Your task to perform on an android device: turn on the 24-hour format for clock Image 0: 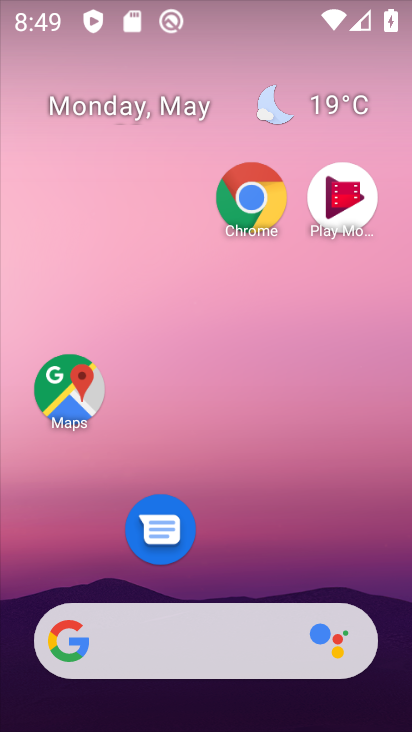
Step 0: drag from (270, 535) to (194, 0)
Your task to perform on an android device: turn on the 24-hour format for clock Image 1: 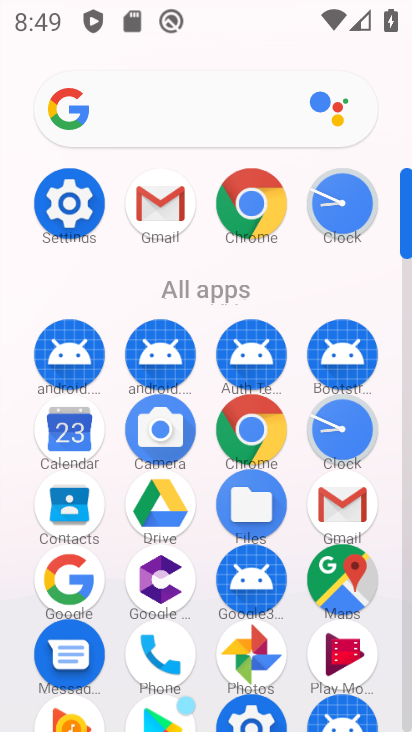
Step 1: click (349, 433)
Your task to perform on an android device: turn on the 24-hour format for clock Image 2: 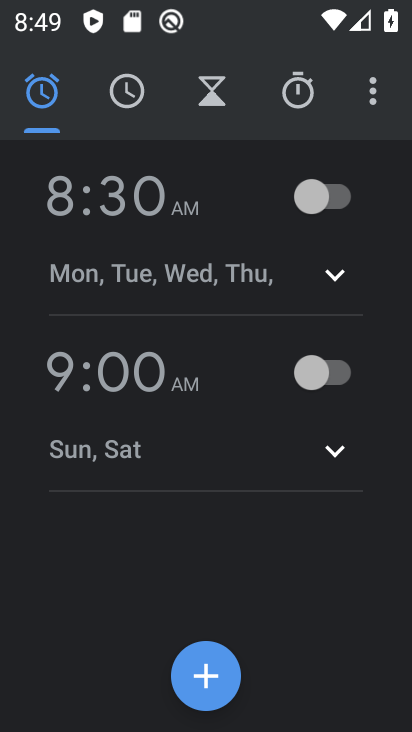
Step 2: click (376, 90)
Your task to perform on an android device: turn on the 24-hour format for clock Image 3: 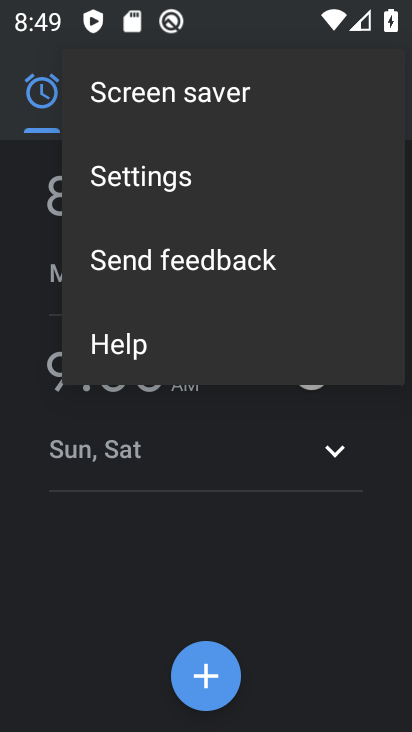
Step 3: click (177, 180)
Your task to perform on an android device: turn on the 24-hour format for clock Image 4: 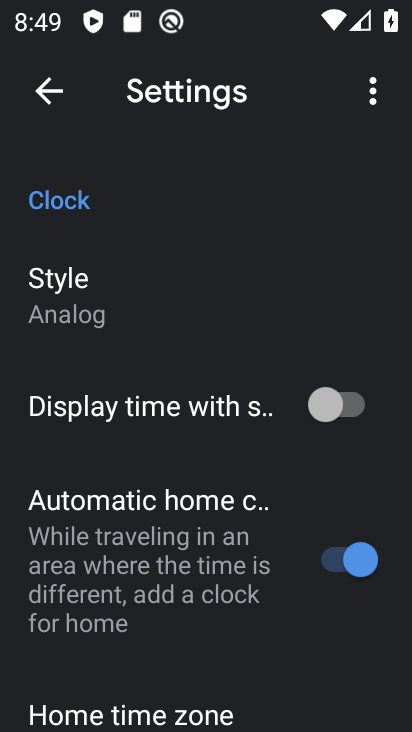
Step 4: drag from (192, 618) to (199, 331)
Your task to perform on an android device: turn on the 24-hour format for clock Image 5: 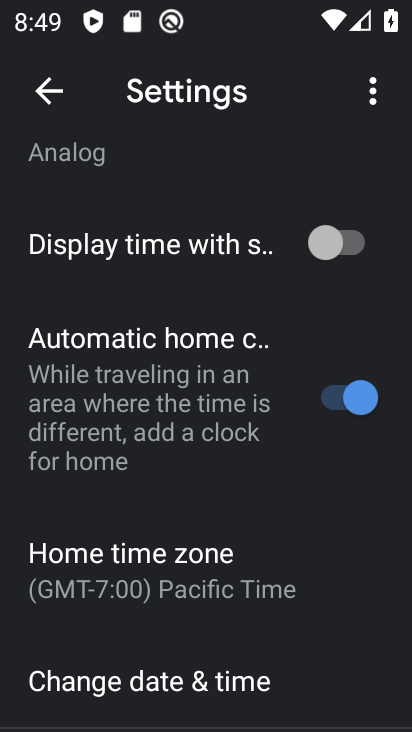
Step 5: drag from (200, 652) to (218, 317)
Your task to perform on an android device: turn on the 24-hour format for clock Image 6: 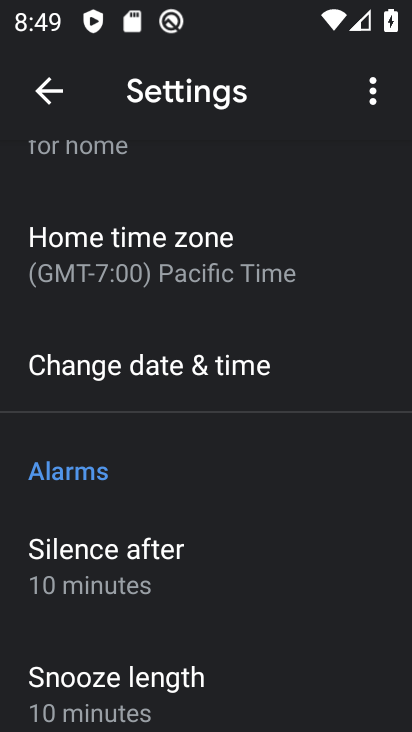
Step 6: click (207, 377)
Your task to perform on an android device: turn on the 24-hour format for clock Image 7: 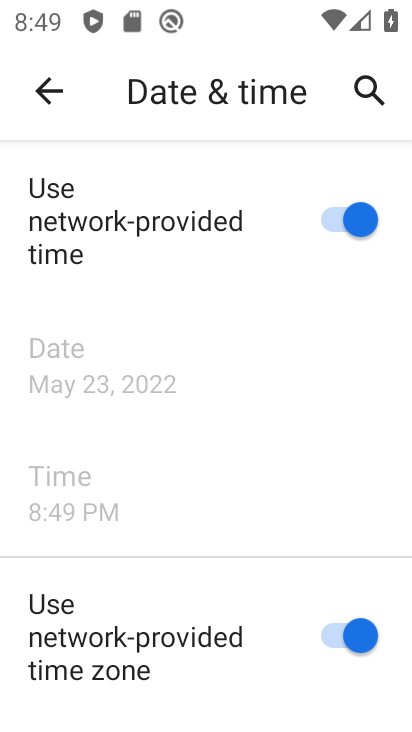
Step 7: drag from (293, 675) to (293, 368)
Your task to perform on an android device: turn on the 24-hour format for clock Image 8: 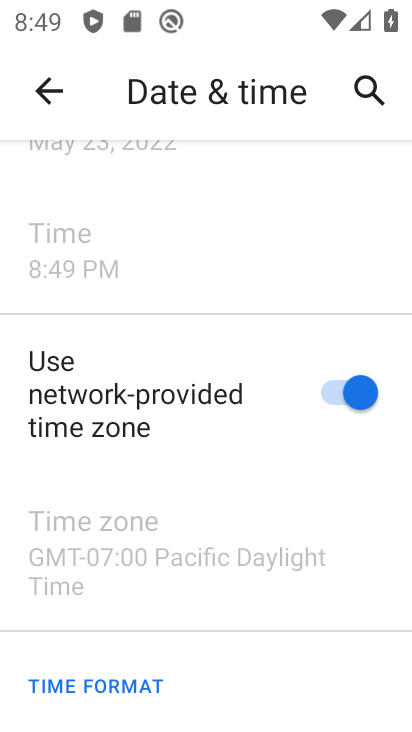
Step 8: drag from (193, 654) to (199, 349)
Your task to perform on an android device: turn on the 24-hour format for clock Image 9: 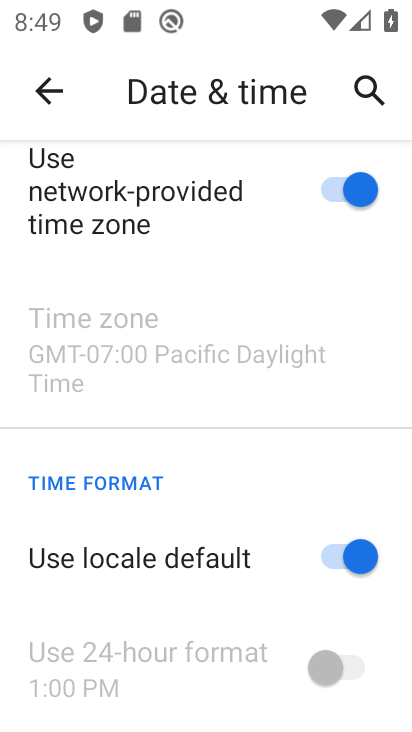
Step 9: click (329, 582)
Your task to perform on an android device: turn on the 24-hour format for clock Image 10: 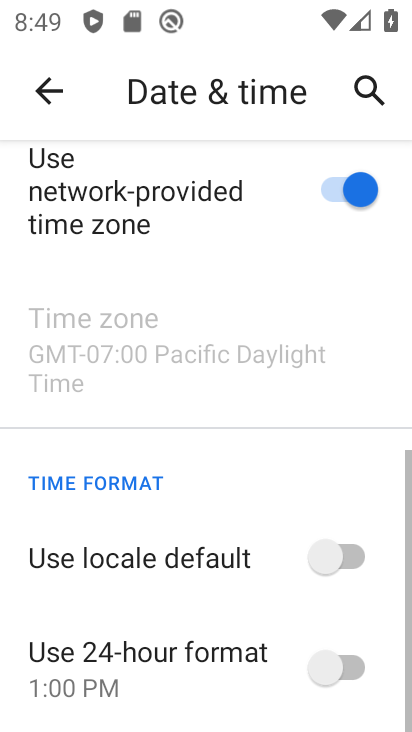
Step 10: click (371, 679)
Your task to perform on an android device: turn on the 24-hour format for clock Image 11: 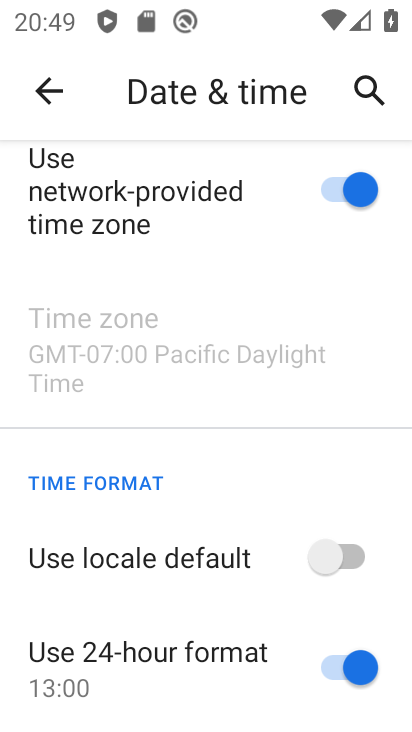
Step 11: task complete